Your task to perform on an android device: snooze an email in the gmail app Image 0: 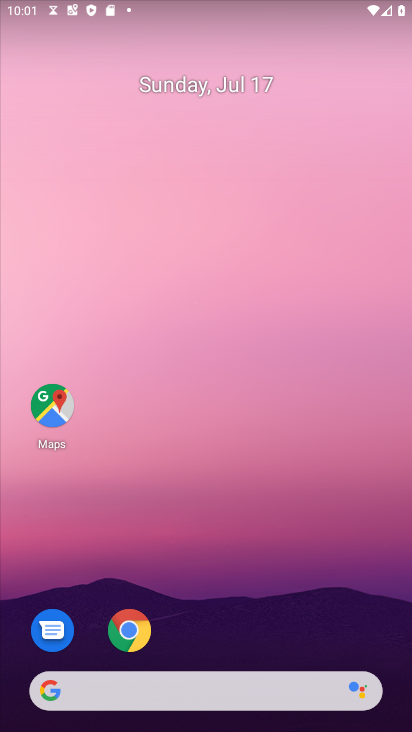
Step 0: drag from (283, 678) to (352, 6)
Your task to perform on an android device: snooze an email in the gmail app Image 1: 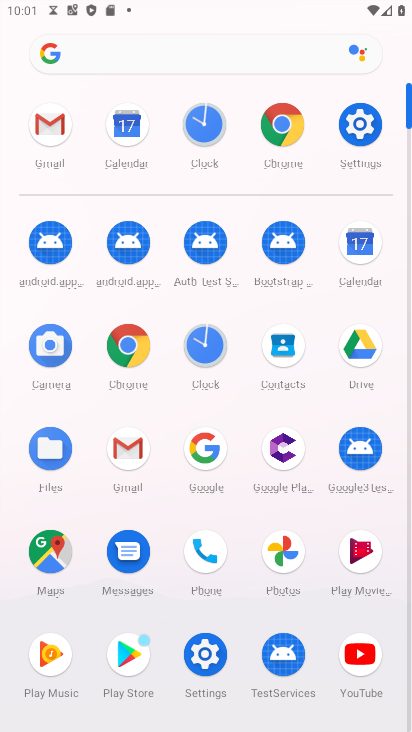
Step 1: click (132, 452)
Your task to perform on an android device: snooze an email in the gmail app Image 2: 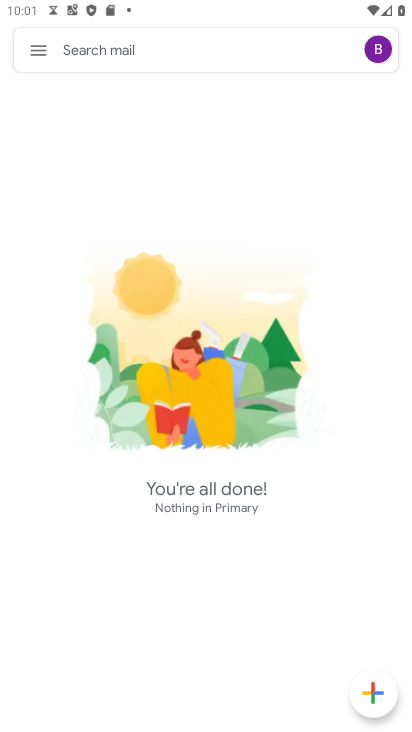
Step 2: click (37, 55)
Your task to perform on an android device: snooze an email in the gmail app Image 3: 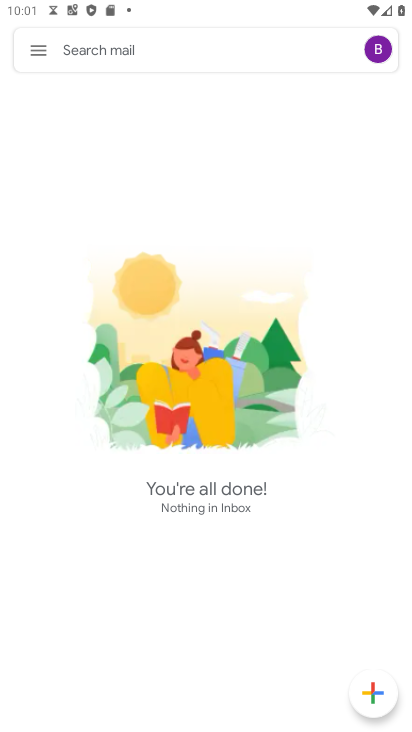
Step 3: click (36, 42)
Your task to perform on an android device: snooze an email in the gmail app Image 4: 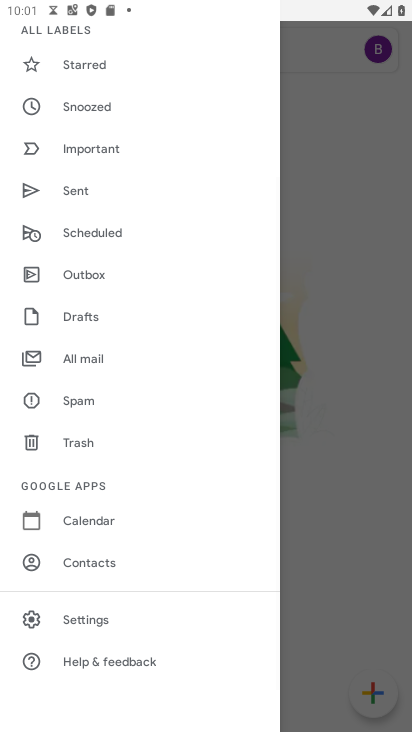
Step 4: click (102, 111)
Your task to perform on an android device: snooze an email in the gmail app Image 5: 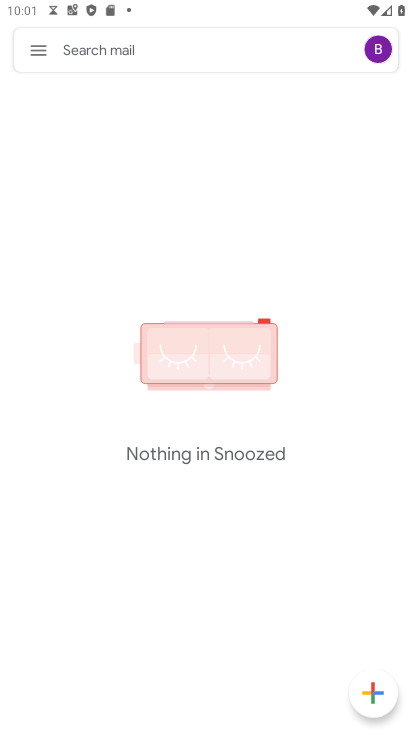
Step 5: task complete